Your task to perform on an android device: check the backup settings in the google photos Image 0: 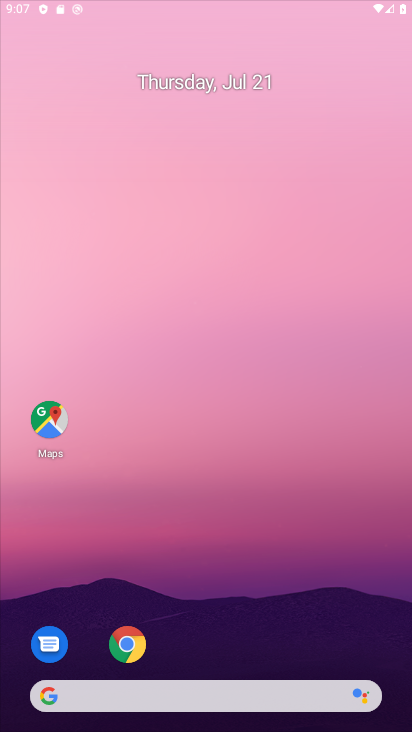
Step 0: press back button
Your task to perform on an android device: check the backup settings in the google photos Image 1: 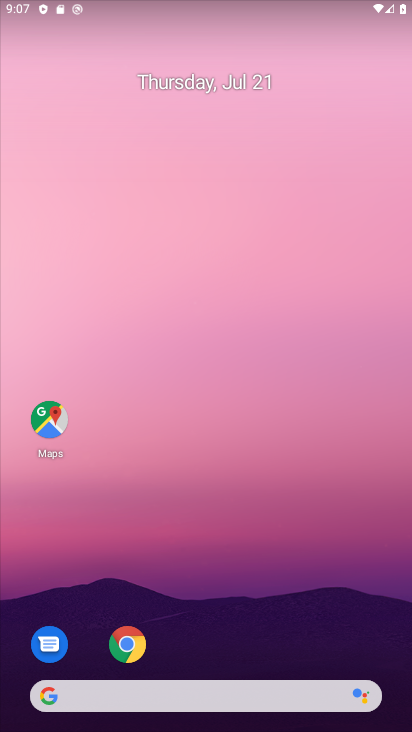
Step 1: drag from (258, 676) to (227, 144)
Your task to perform on an android device: check the backup settings in the google photos Image 2: 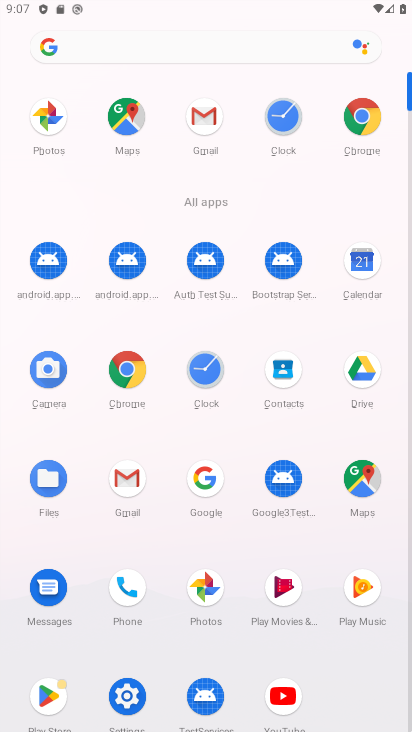
Step 2: click (216, 585)
Your task to perform on an android device: check the backup settings in the google photos Image 3: 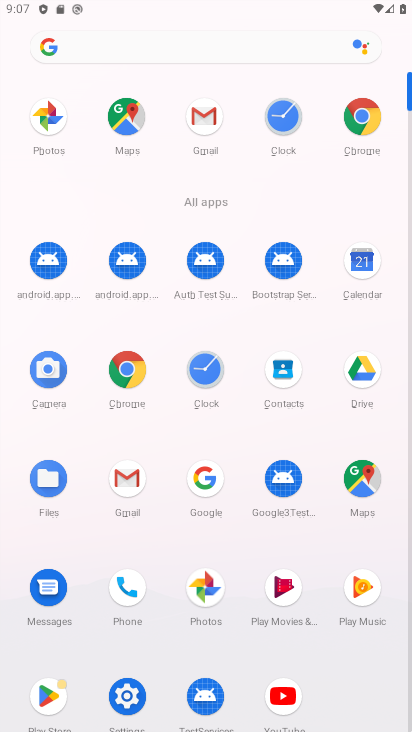
Step 3: click (216, 588)
Your task to perform on an android device: check the backup settings in the google photos Image 4: 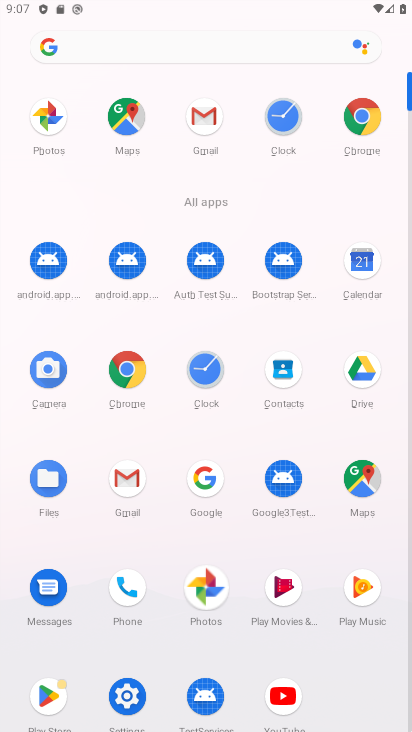
Step 4: click (214, 589)
Your task to perform on an android device: check the backup settings in the google photos Image 5: 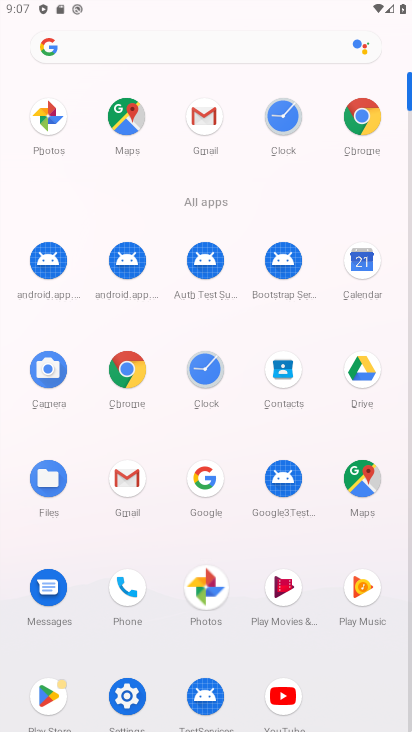
Step 5: click (213, 589)
Your task to perform on an android device: check the backup settings in the google photos Image 6: 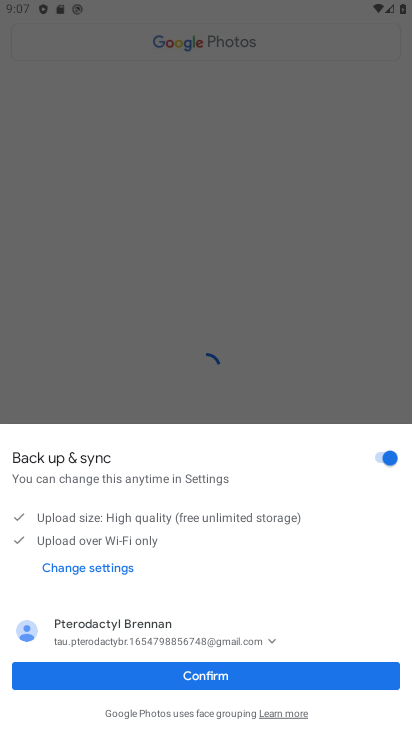
Step 6: click (227, 672)
Your task to perform on an android device: check the backup settings in the google photos Image 7: 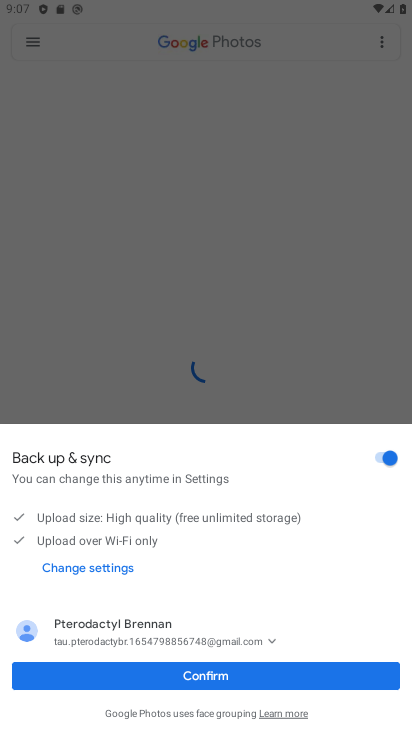
Step 7: click (227, 672)
Your task to perform on an android device: check the backup settings in the google photos Image 8: 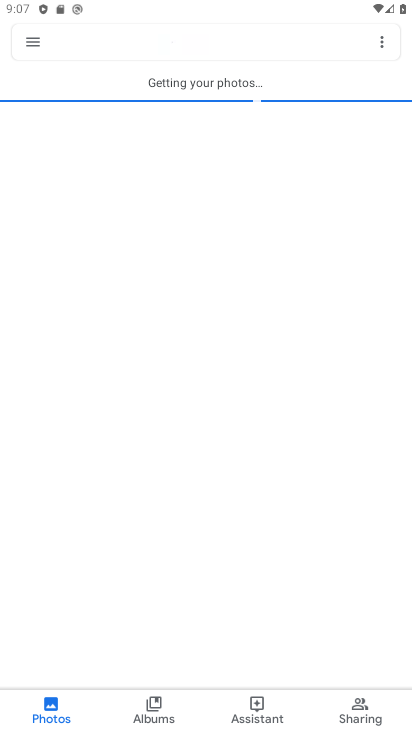
Step 8: drag from (25, 38) to (58, 293)
Your task to perform on an android device: check the backup settings in the google photos Image 9: 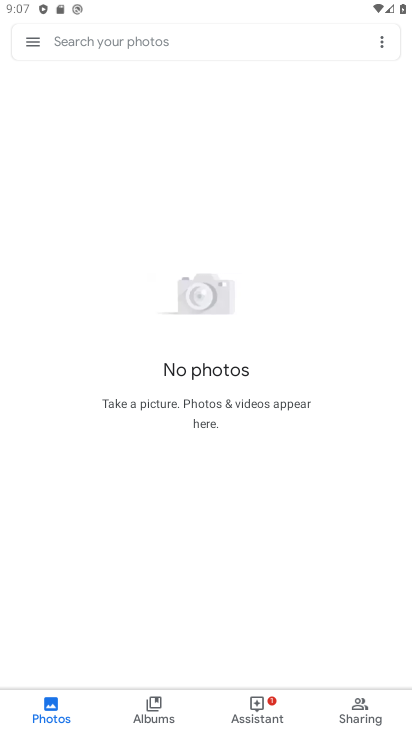
Step 9: click (28, 36)
Your task to perform on an android device: check the backup settings in the google photos Image 10: 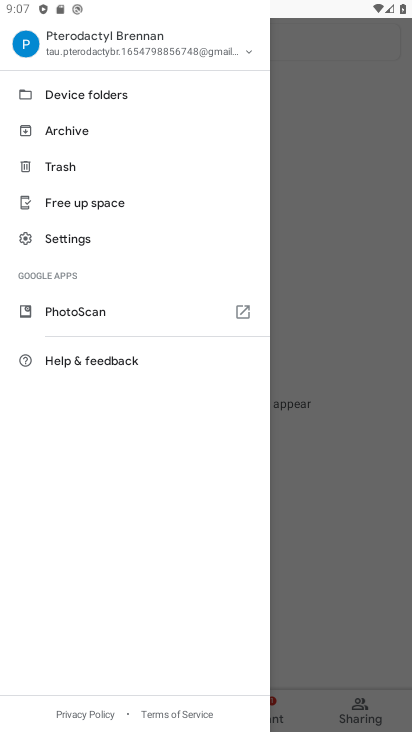
Step 10: click (68, 240)
Your task to perform on an android device: check the backup settings in the google photos Image 11: 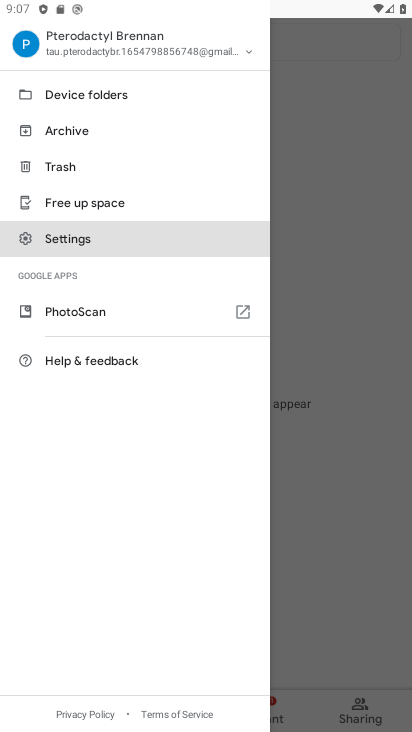
Step 11: click (71, 237)
Your task to perform on an android device: check the backup settings in the google photos Image 12: 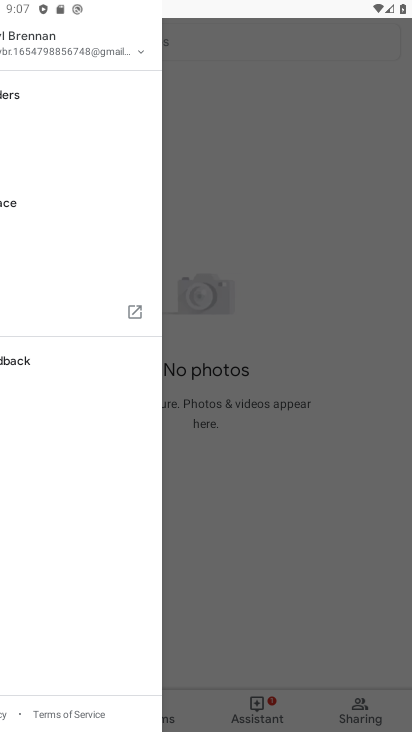
Step 12: click (72, 236)
Your task to perform on an android device: check the backup settings in the google photos Image 13: 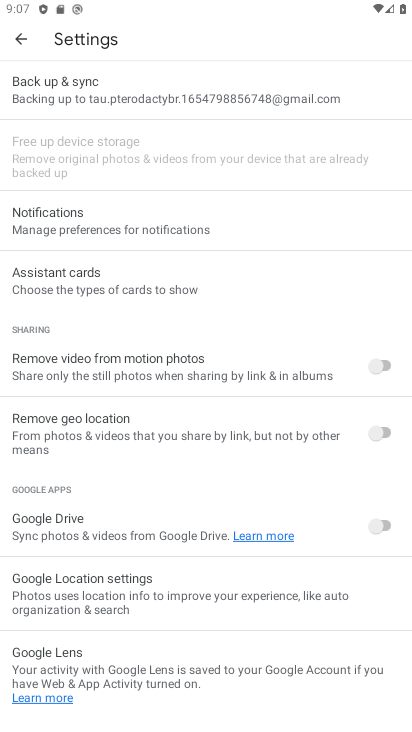
Step 13: click (97, 88)
Your task to perform on an android device: check the backup settings in the google photos Image 14: 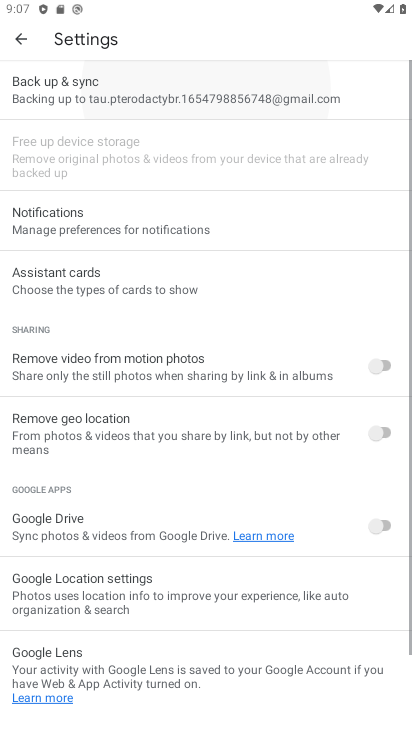
Step 14: click (95, 89)
Your task to perform on an android device: check the backup settings in the google photos Image 15: 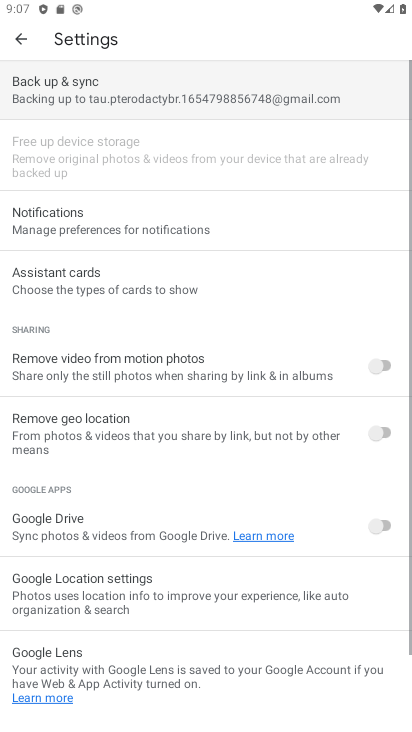
Step 15: click (95, 89)
Your task to perform on an android device: check the backup settings in the google photos Image 16: 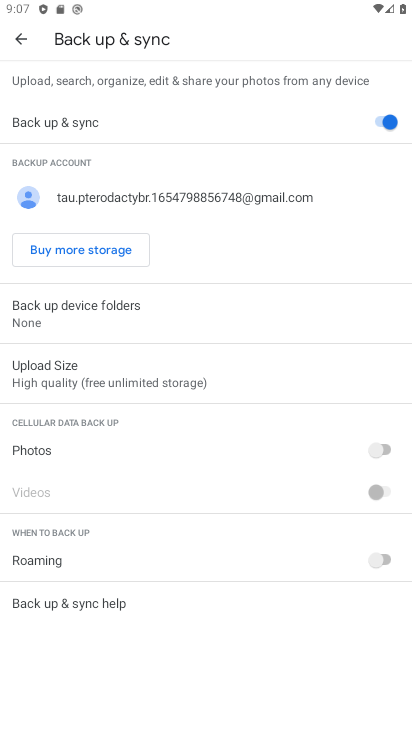
Step 16: click (46, 365)
Your task to perform on an android device: check the backup settings in the google photos Image 17: 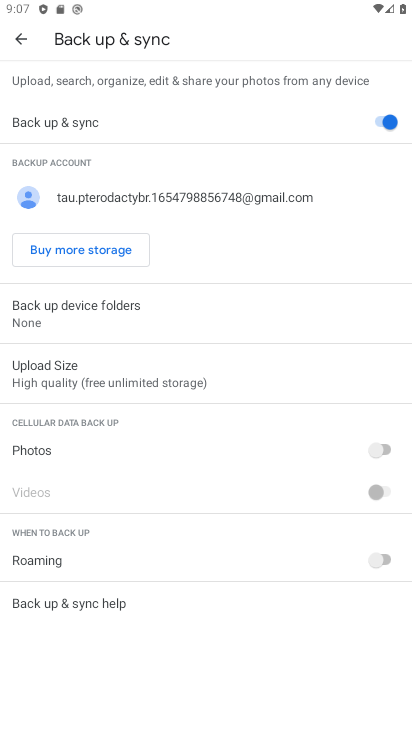
Step 17: click (47, 366)
Your task to perform on an android device: check the backup settings in the google photos Image 18: 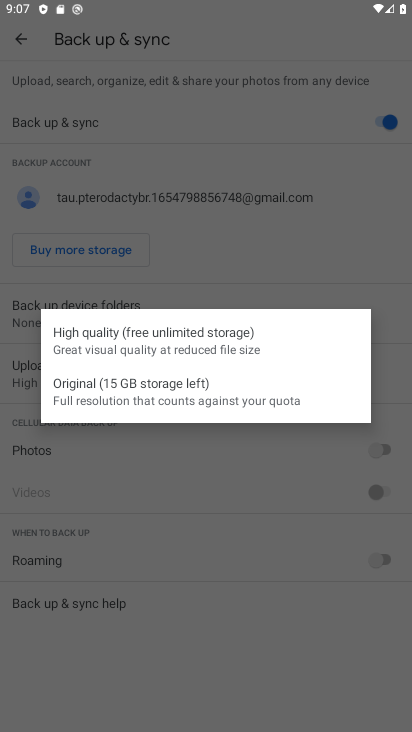
Step 18: click (110, 393)
Your task to perform on an android device: check the backup settings in the google photos Image 19: 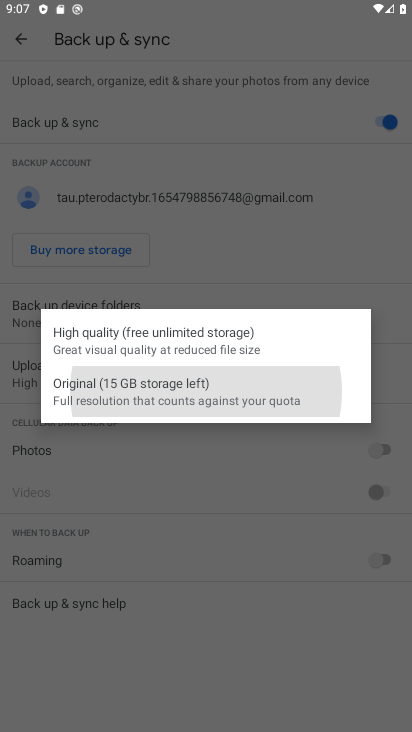
Step 19: click (119, 386)
Your task to perform on an android device: check the backup settings in the google photos Image 20: 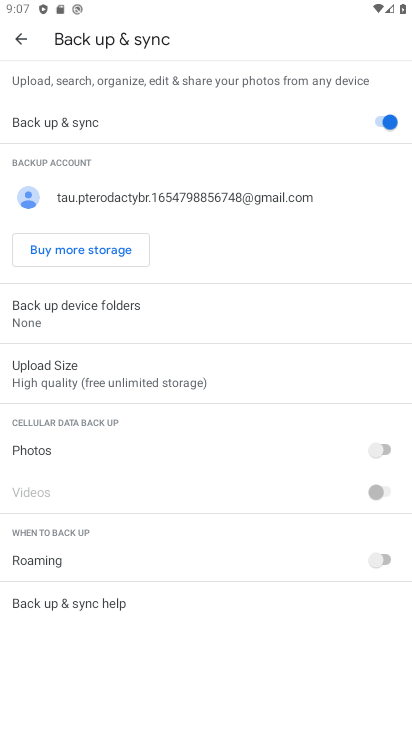
Step 20: click (119, 387)
Your task to perform on an android device: check the backup settings in the google photos Image 21: 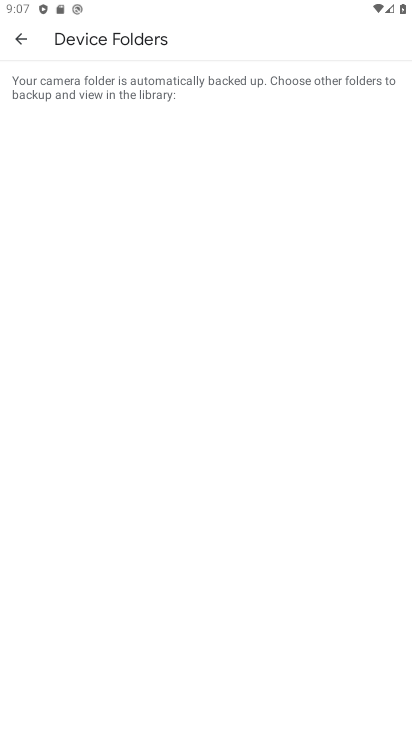
Step 21: task complete